Your task to perform on an android device: open app "AliExpress" (install if not already installed) Image 0: 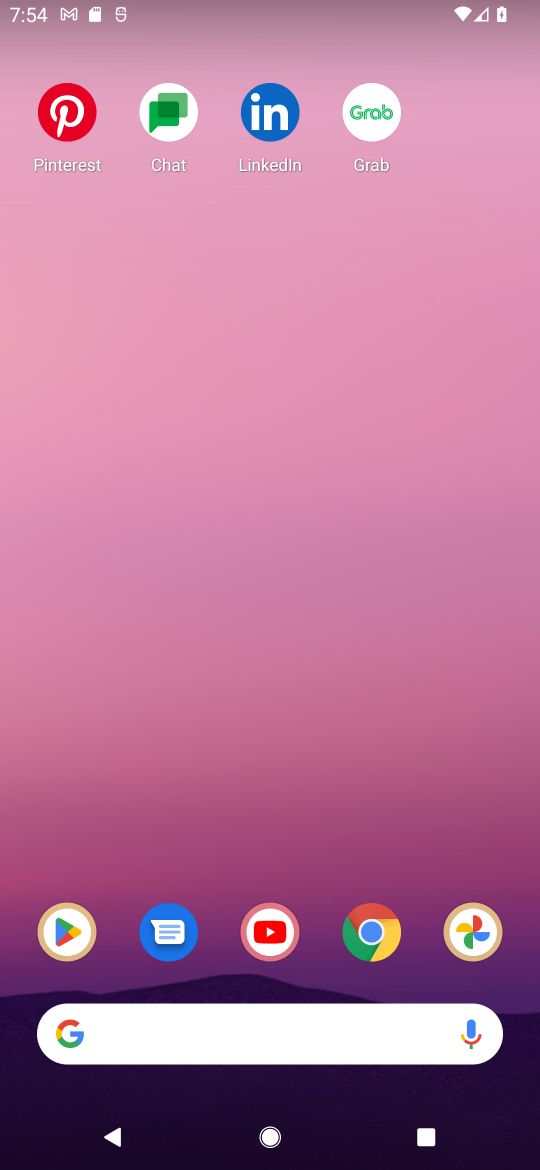
Step 0: click (68, 946)
Your task to perform on an android device: open app "AliExpress" (install if not already installed) Image 1: 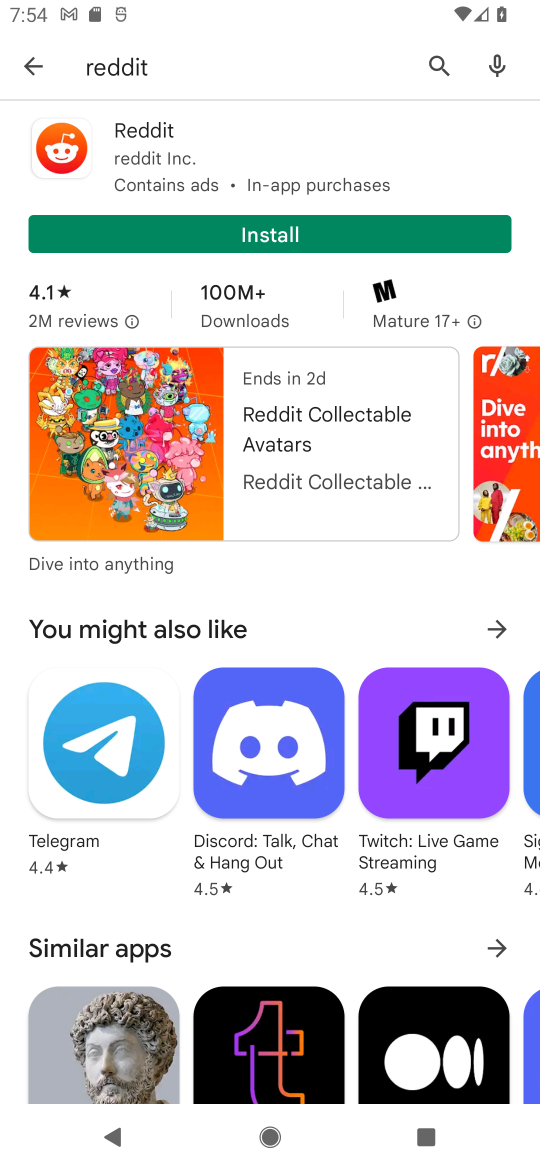
Step 1: click (172, 50)
Your task to perform on an android device: open app "AliExpress" (install if not already installed) Image 2: 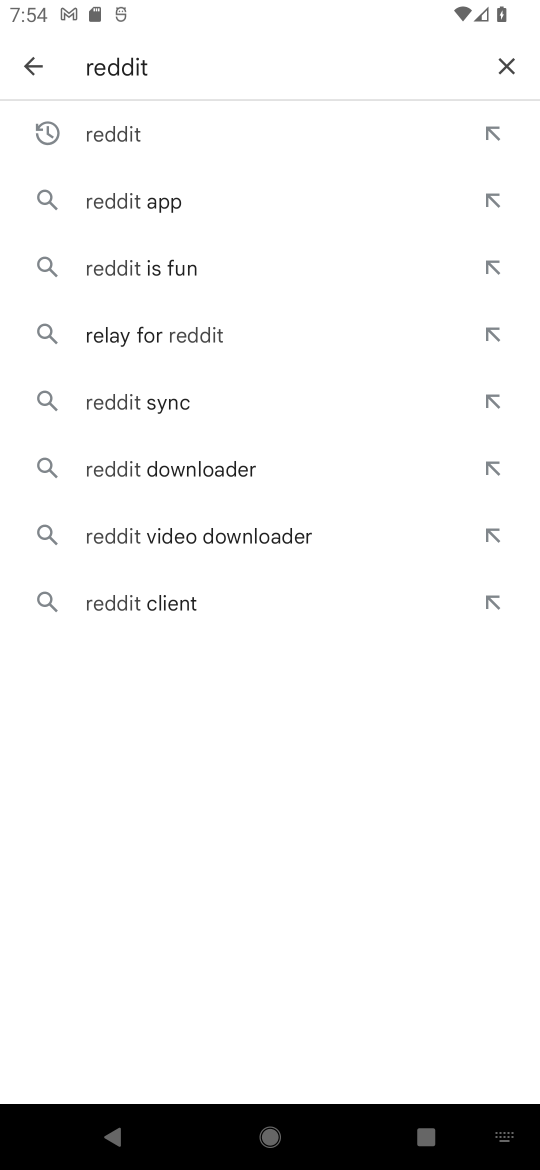
Step 2: click (508, 73)
Your task to perform on an android device: open app "AliExpress" (install if not already installed) Image 3: 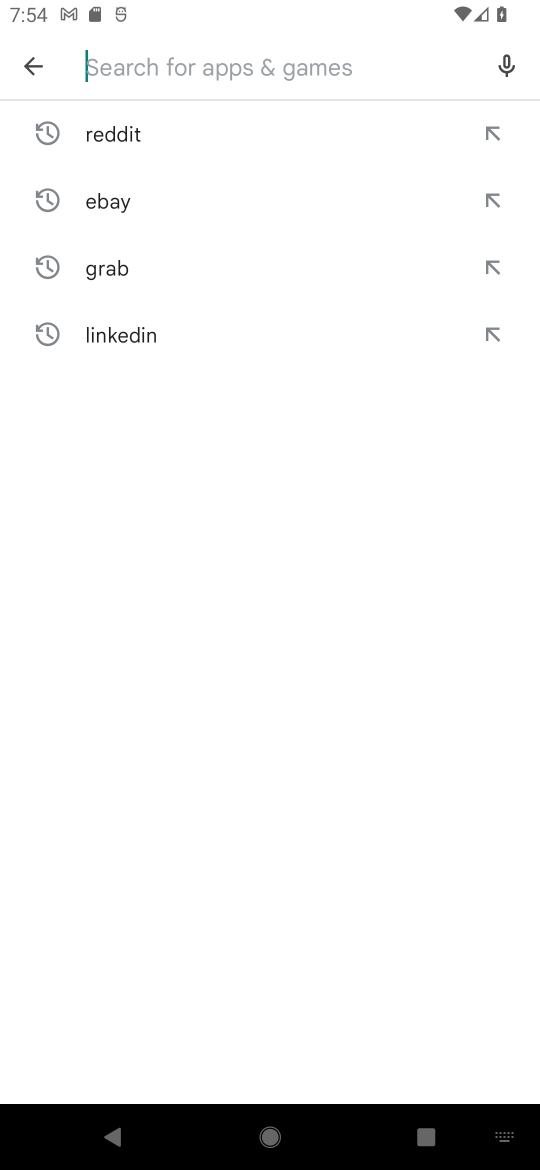
Step 3: type "Ali Express"
Your task to perform on an android device: open app "AliExpress" (install if not already installed) Image 4: 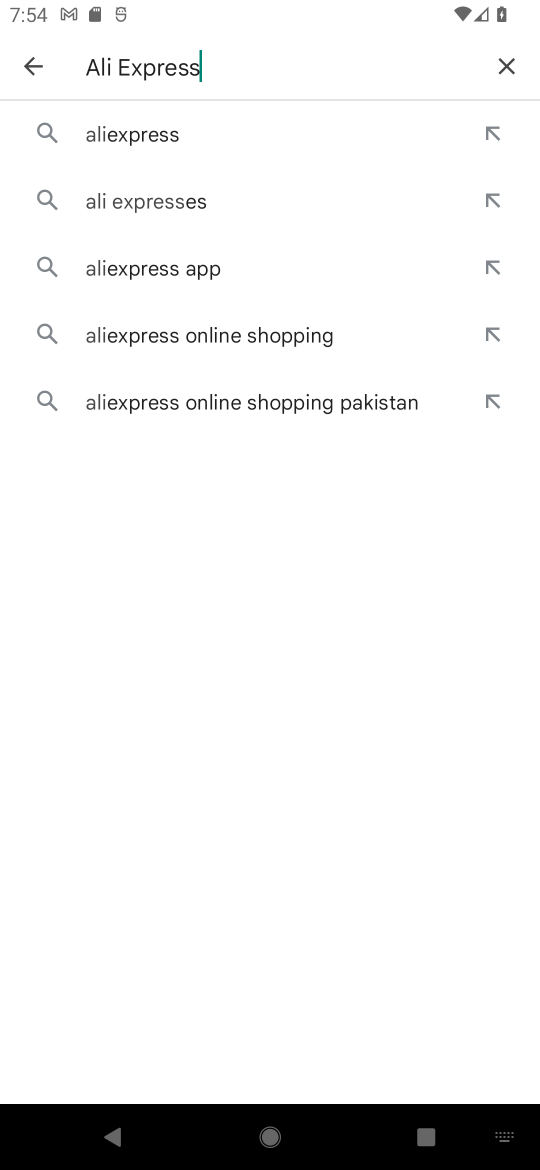
Step 4: click (170, 141)
Your task to perform on an android device: open app "AliExpress" (install if not already installed) Image 5: 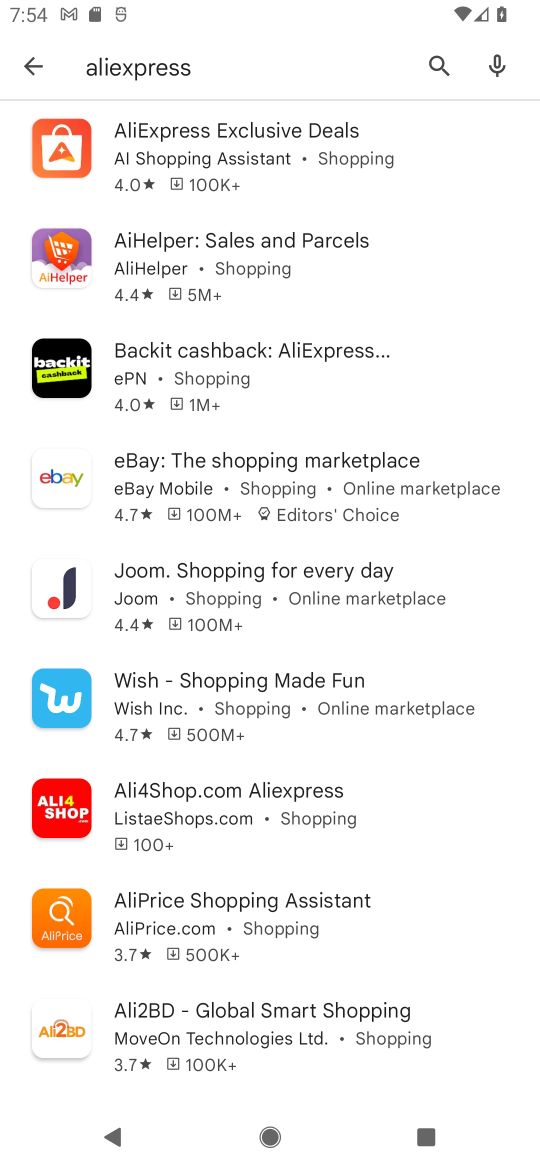
Step 5: click (261, 158)
Your task to perform on an android device: open app "AliExpress" (install if not already installed) Image 6: 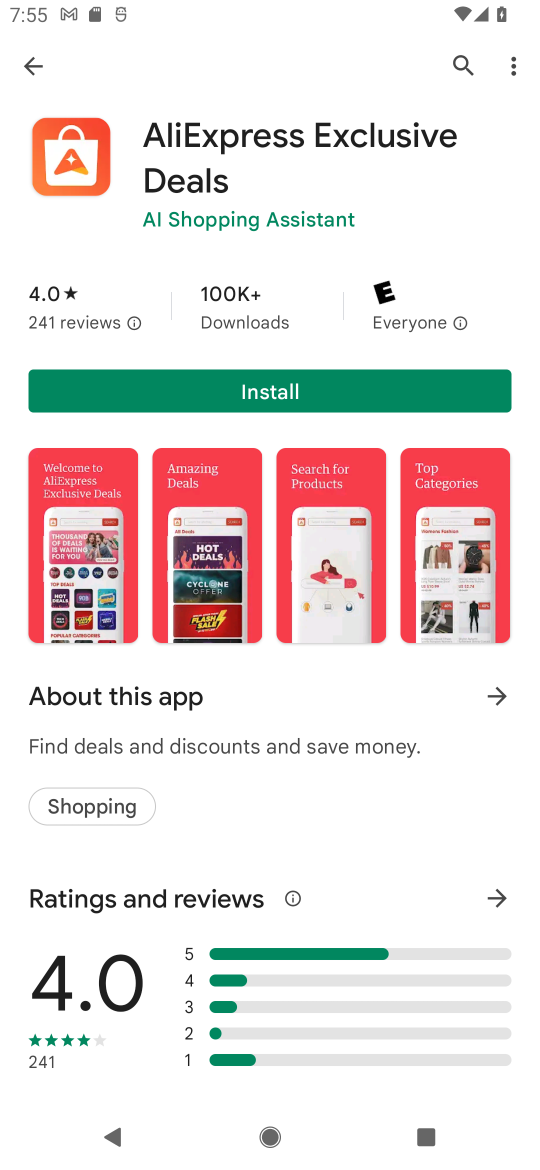
Step 6: click (242, 387)
Your task to perform on an android device: open app "AliExpress" (install if not already installed) Image 7: 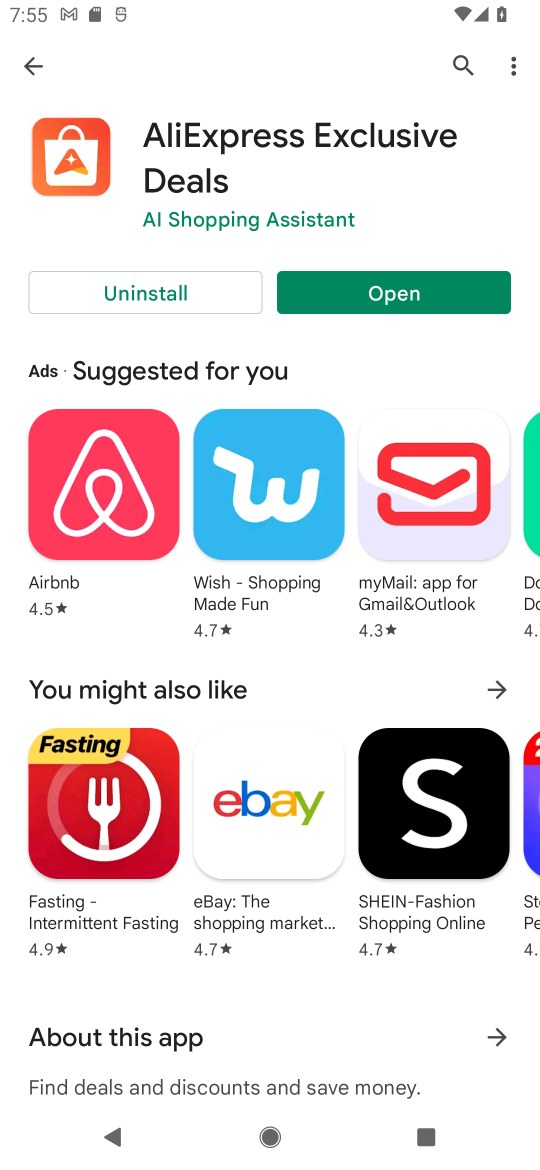
Step 7: click (386, 294)
Your task to perform on an android device: open app "AliExpress" (install if not already installed) Image 8: 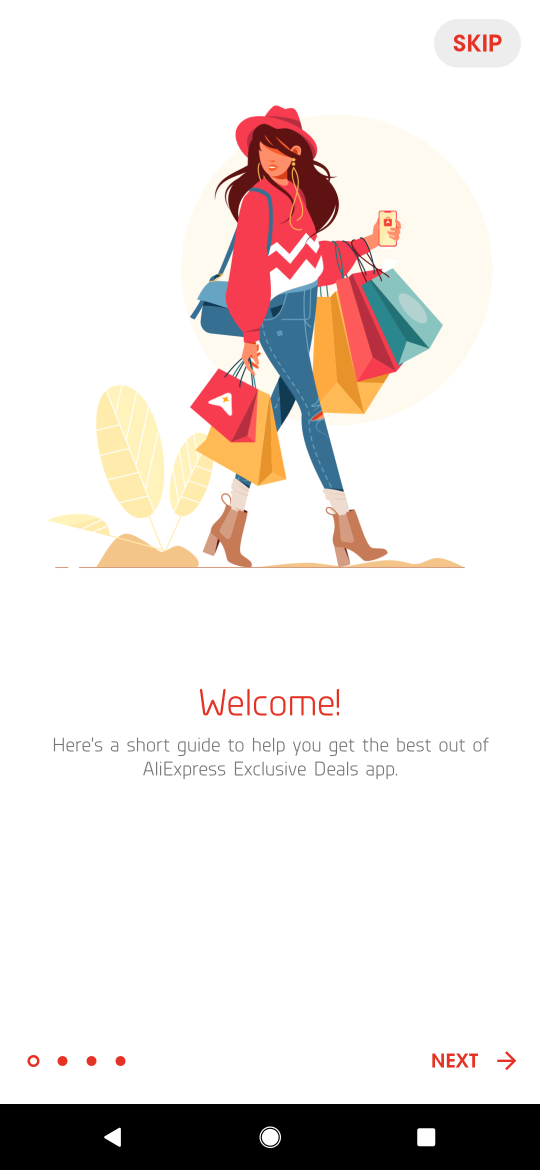
Step 8: click (488, 27)
Your task to perform on an android device: open app "AliExpress" (install if not already installed) Image 9: 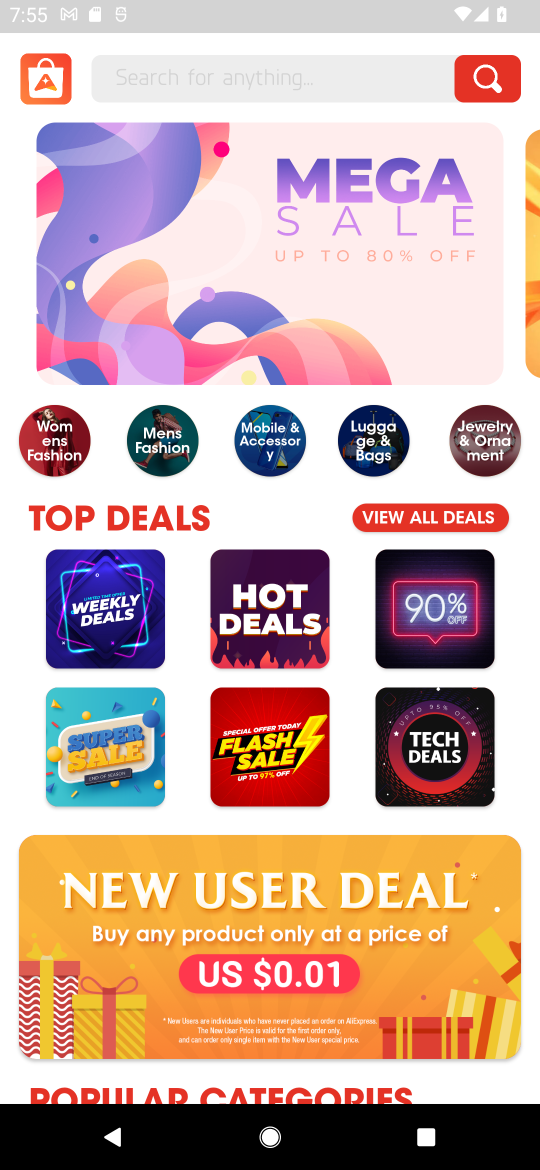
Step 9: task complete